Your task to perform on an android device: Go to Reddit.com Image 0: 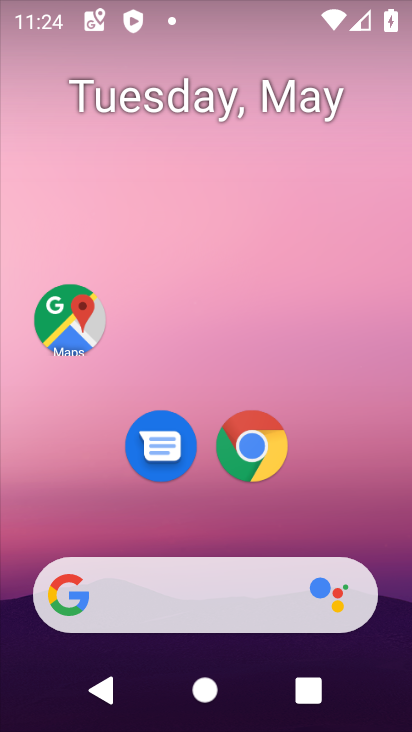
Step 0: press home button
Your task to perform on an android device: Go to Reddit.com Image 1: 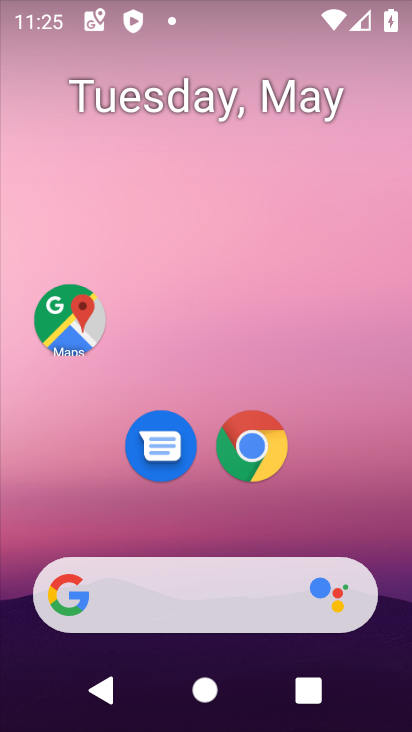
Step 1: drag from (133, 564) to (171, 149)
Your task to perform on an android device: Go to Reddit.com Image 2: 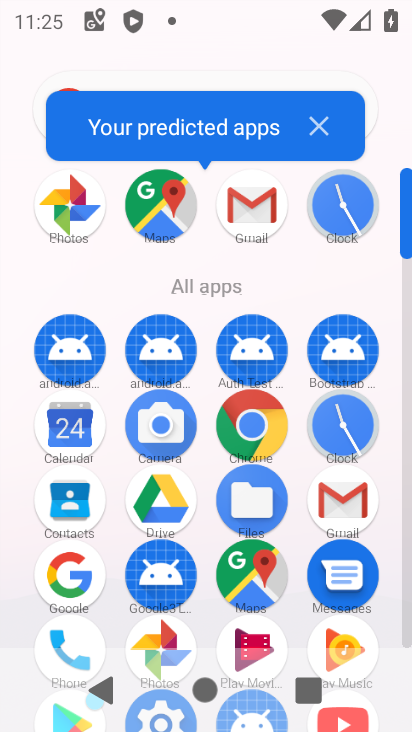
Step 2: click (77, 577)
Your task to perform on an android device: Go to Reddit.com Image 3: 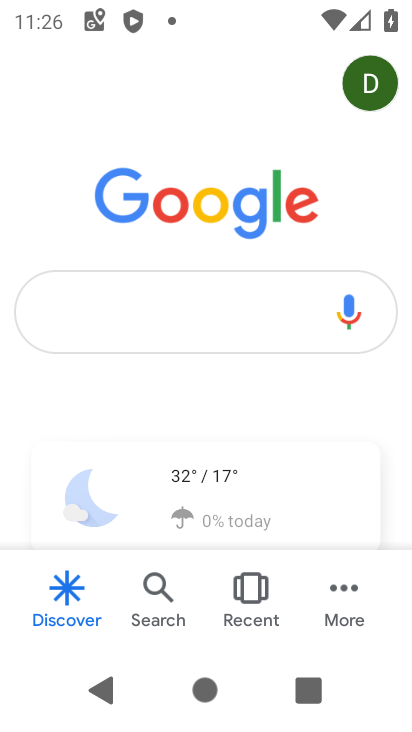
Step 3: click (227, 317)
Your task to perform on an android device: Go to Reddit.com Image 4: 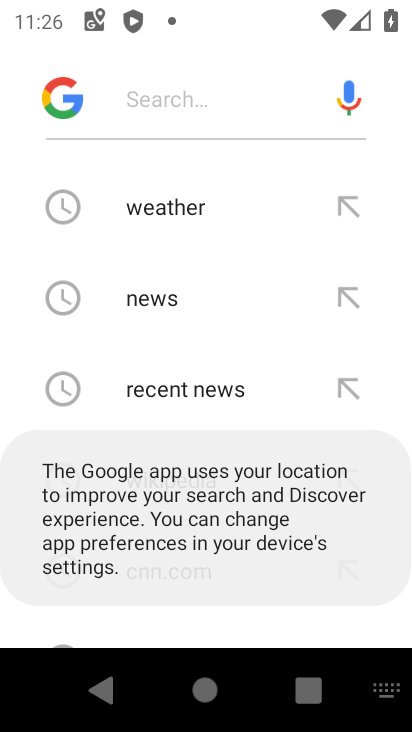
Step 4: drag from (177, 410) to (178, 140)
Your task to perform on an android device: Go to Reddit.com Image 5: 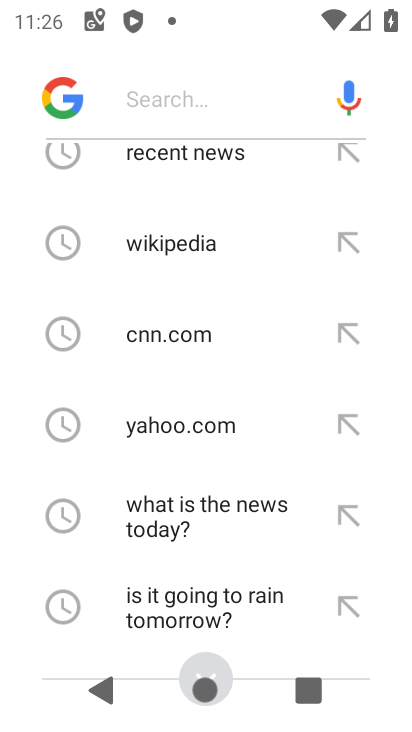
Step 5: drag from (184, 386) to (208, 138)
Your task to perform on an android device: Go to Reddit.com Image 6: 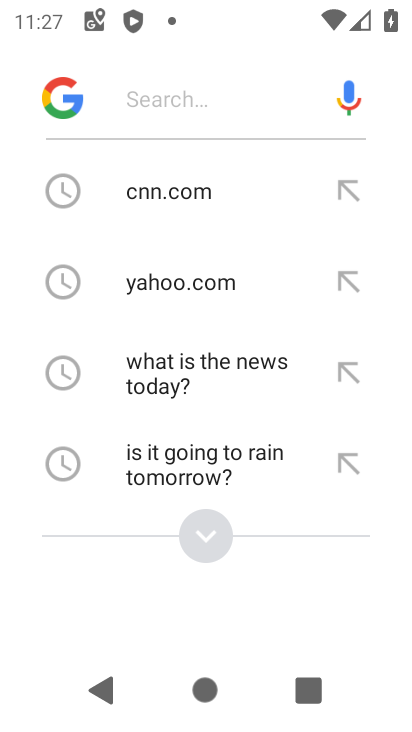
Step 6: click (208, 528)
Your task to perform on an android device: Go to Reddit.com Image 7: 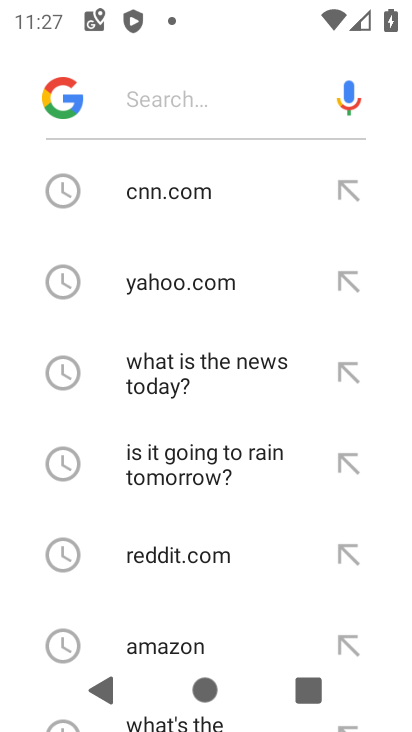
Step 7: click (171, 550)
Your task to perform on an android device: Go to Reddit.com Image 8: 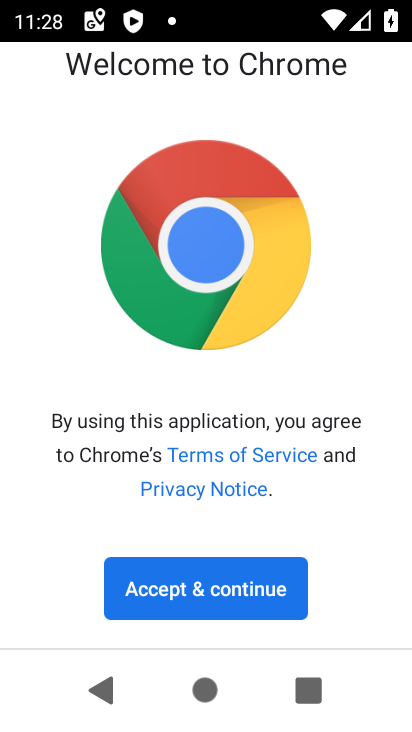
Step 8: click (243, 579)
Your task to perform on an android device: Go to Reddit.com Image 9: 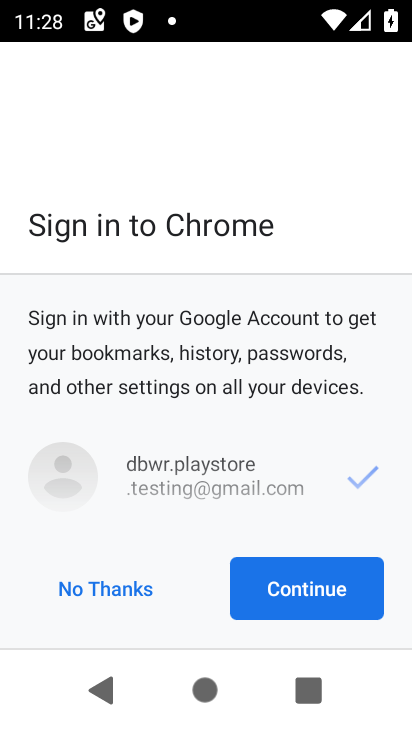
Step 9: click (293, 590)
Your task to perform on an android device: Go to Reddit.com Image 10: 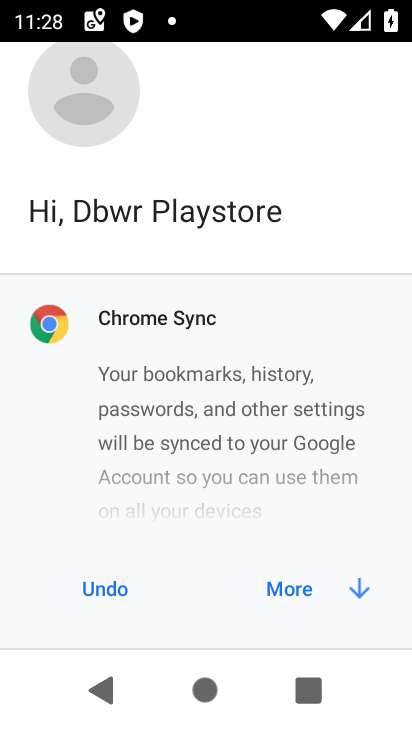
Step 10: click (292, 590)
Your task to perform on an android device: Go to Reddit.com Image 11: 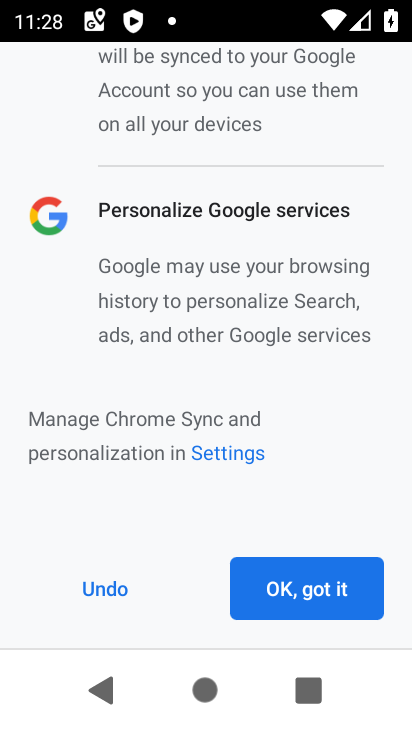
Step 11: click (291, 591)
Your task to perform on an android device: Go to Reddit.com Image 12: 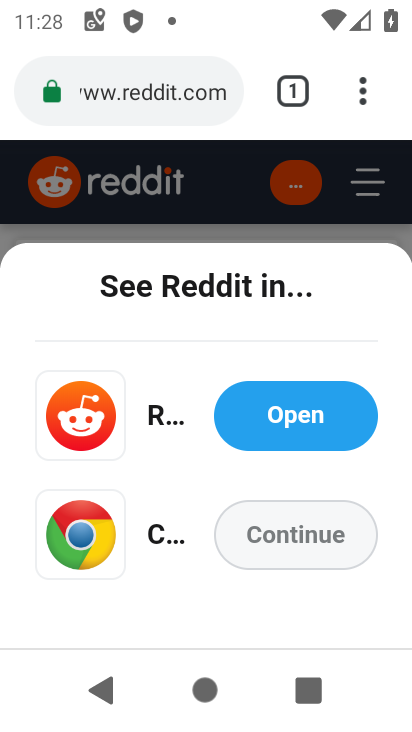
Step 12: task complete